Your task to perform on an android device: Go to Android settings Image 0: 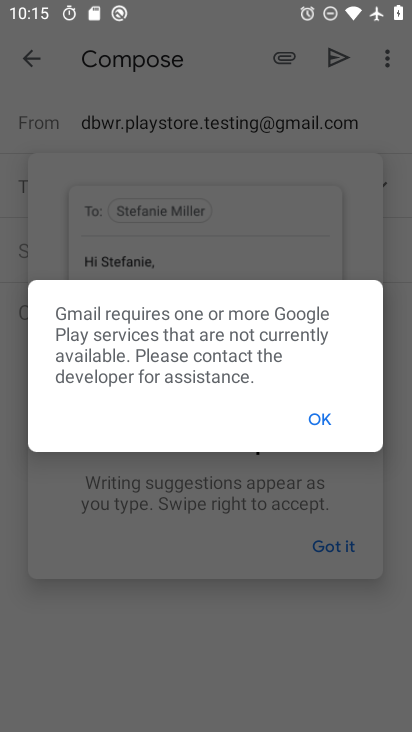
Step 0: press home button
Your task to perform on an android device: Go to Android settings Image 1: 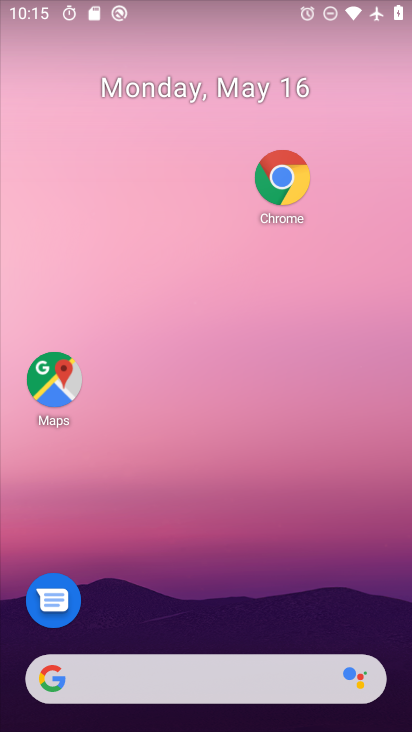
Step 1: drag from (225, 693) to (325, 87)
Your task to perform on an android device: Go to Android settings Image 2: 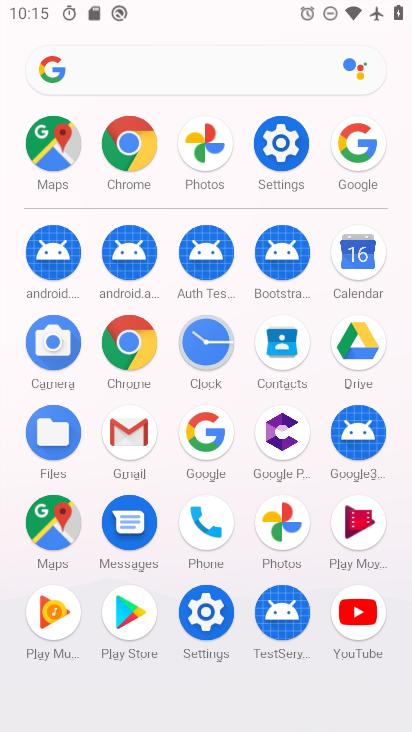
Step 2: click (277, 159)
Your task to perform on an android device: Go to Android settings Image 3: 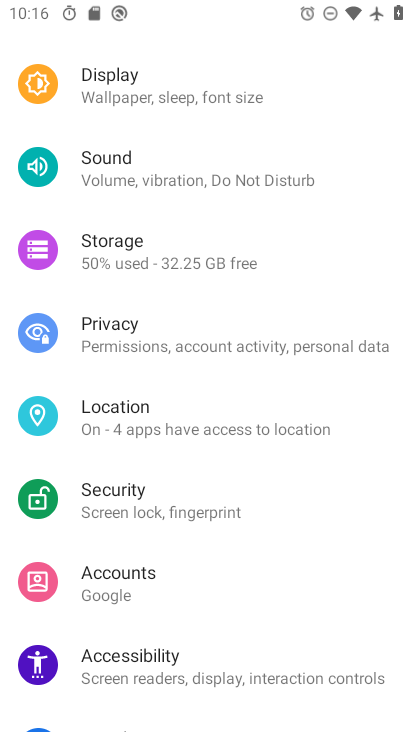
Step 3: task complete